Your task to perform on an android device: Add "dell xps" to the cart on newegg.com, then select checkout. Image 0: 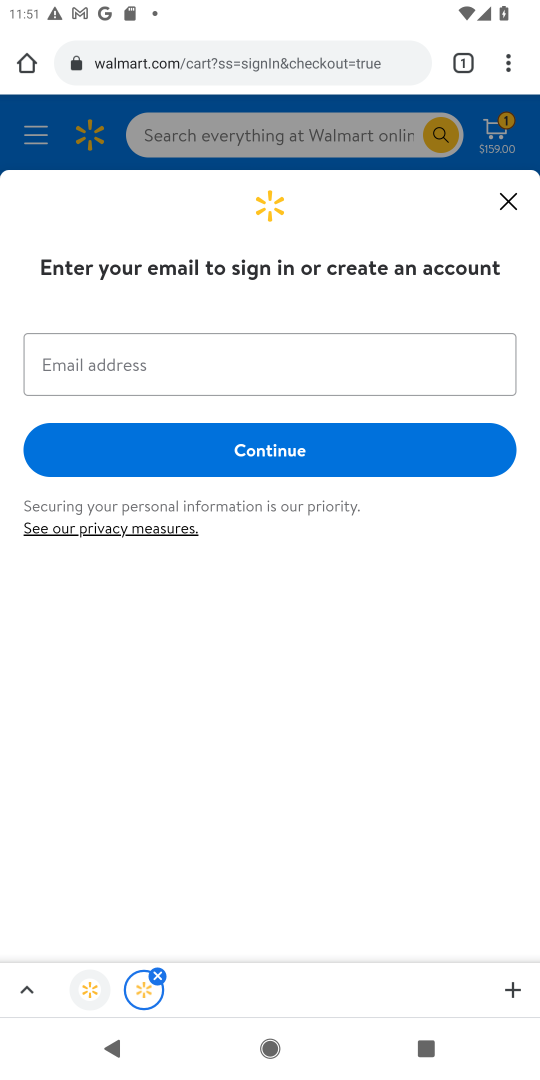
Step 0: press home button
Your task to perform on an android device: Add "dell xps" to the cart on newegg.com, then select checkout. Image 1: 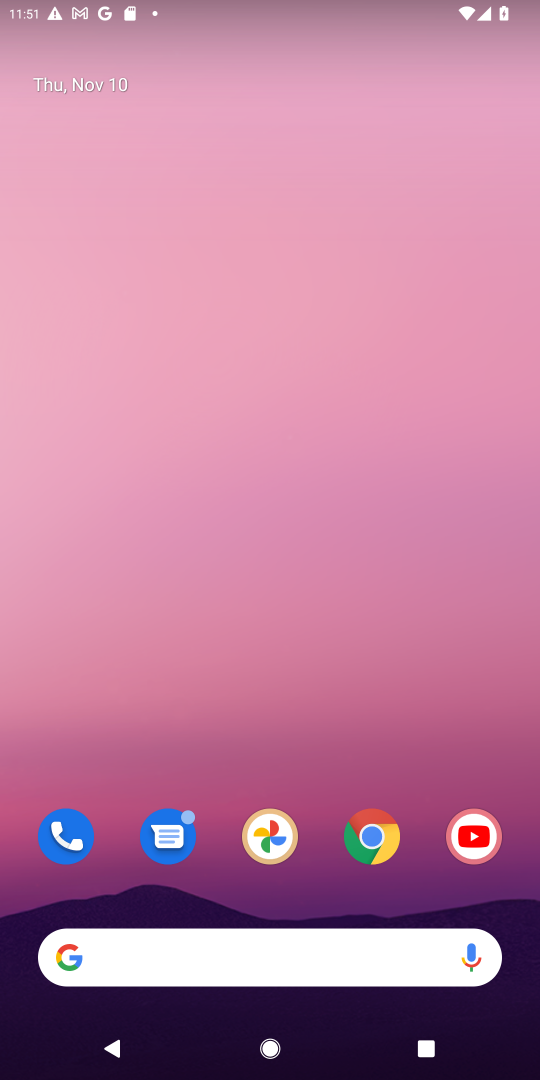
Step 1: click (263, 959)
Your task to perform on an android device: Add "dell xps" to the cart on newegg.com, then select checkout. Image 2: 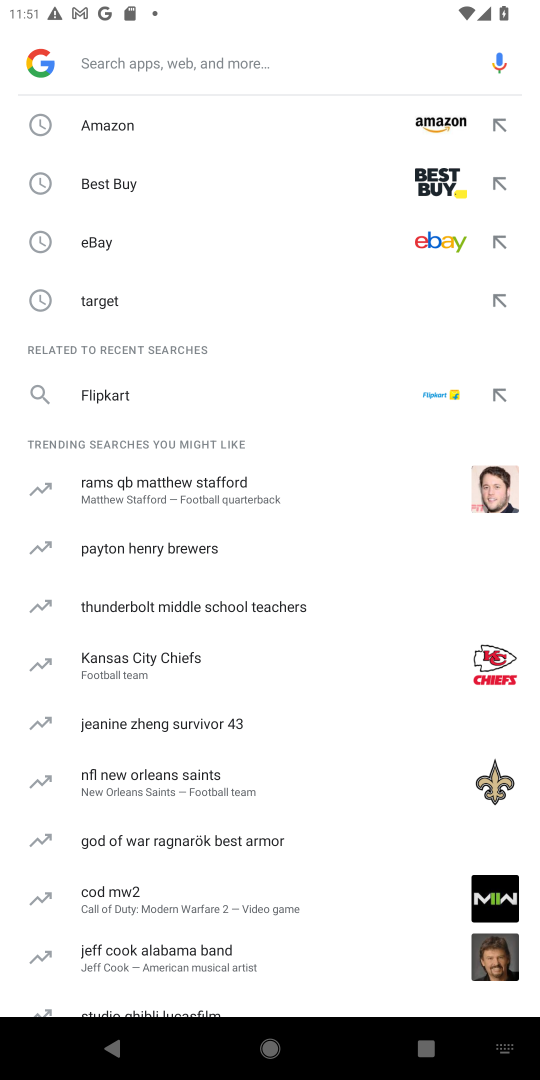
Step 2: type "newegg.com"
Your task to perform on an android device: Add "dell xps" to the cart on newegg.com, then select checkout. Image 3: 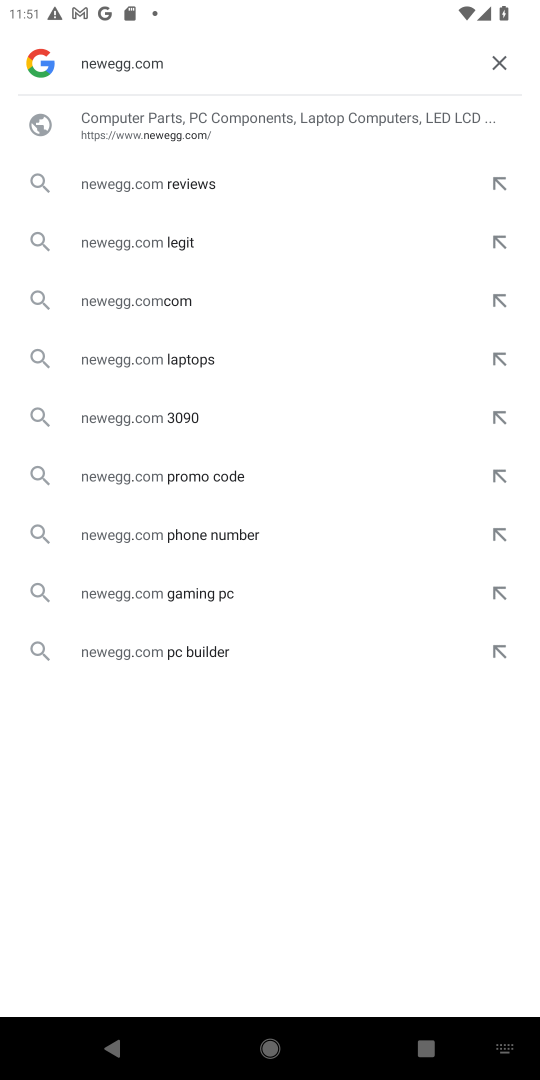
Step 3: click (165, 126)
Your task to perform on an android device: Add "dell xps" to the cart on newegg.com, then select checkout. Image 4: 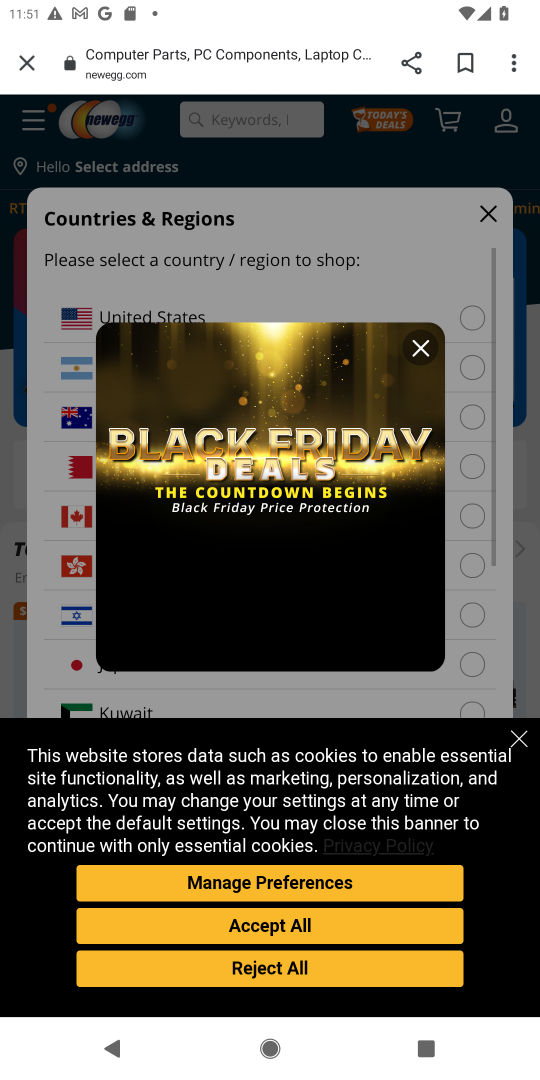
Step 4: click (515, 735)
Your task to perform on an android device: Add "dell xps" to the cart on newegg.com, then select checkout. Image 5: 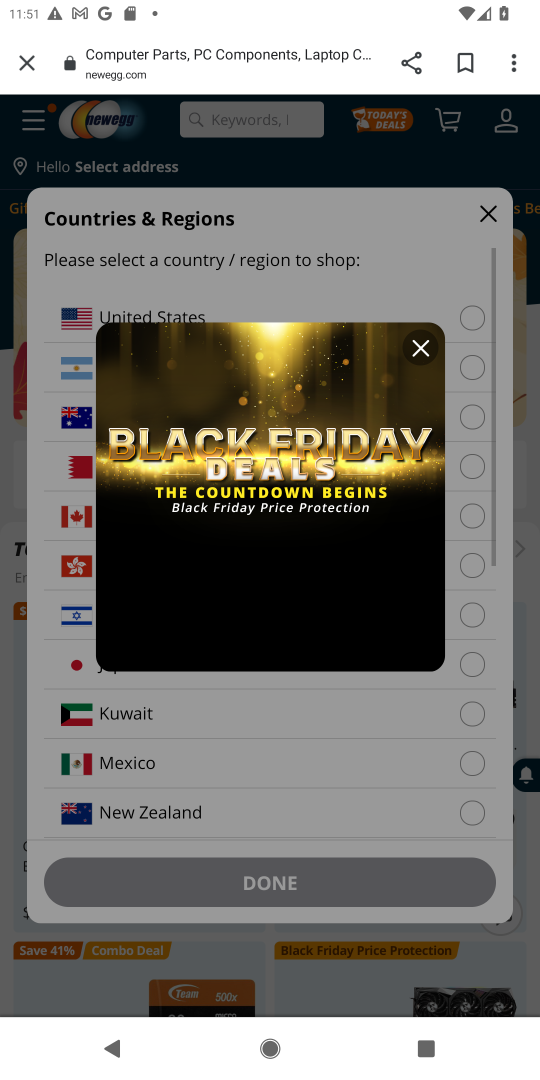
Step 5: click (421, 350)
Your task to perform on an android device: Add "dell xps" to the cart on newegg.com, then select checkout. Image 6: 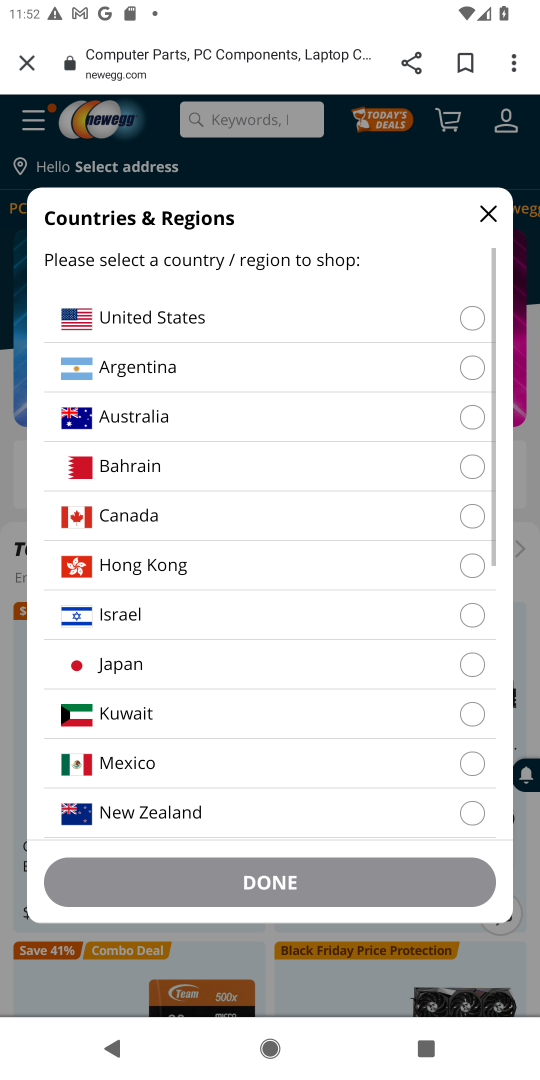
Step 6: click (475, 326)
Your task to perform on an android device: Add "dell xps" to the cart on newegg.com, then select checkout. Image 7: 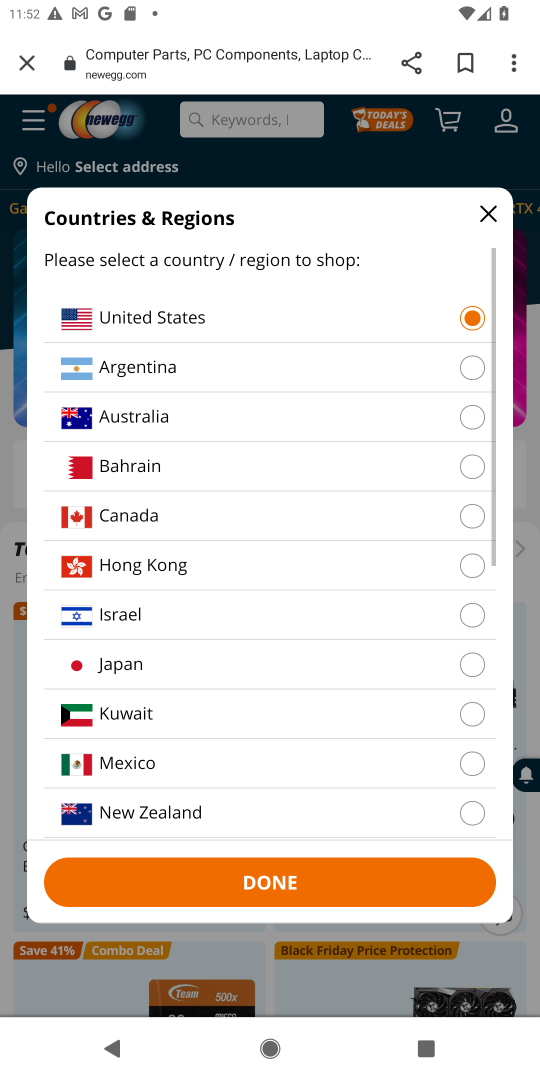
Step 7: click (270, 871)
Your task to perform on an android device: Add "dell xps" to the cart on newegg.com, then select checkout. Image 8: 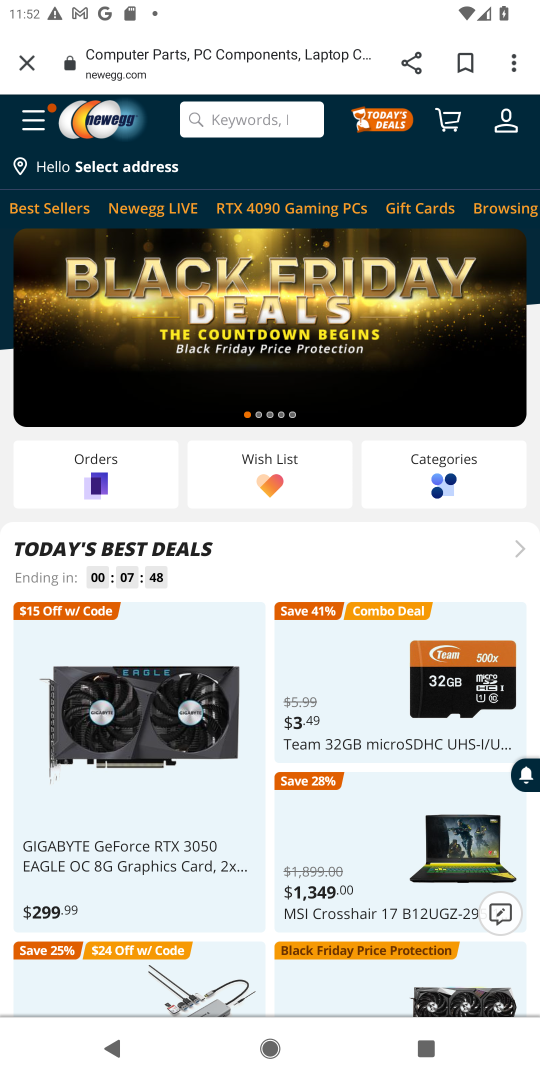
Step 8: click (413, 113)
Your task to perform on an android device: Add "dell xps" to the cart on newegg.com, then select checkout. Image 9: 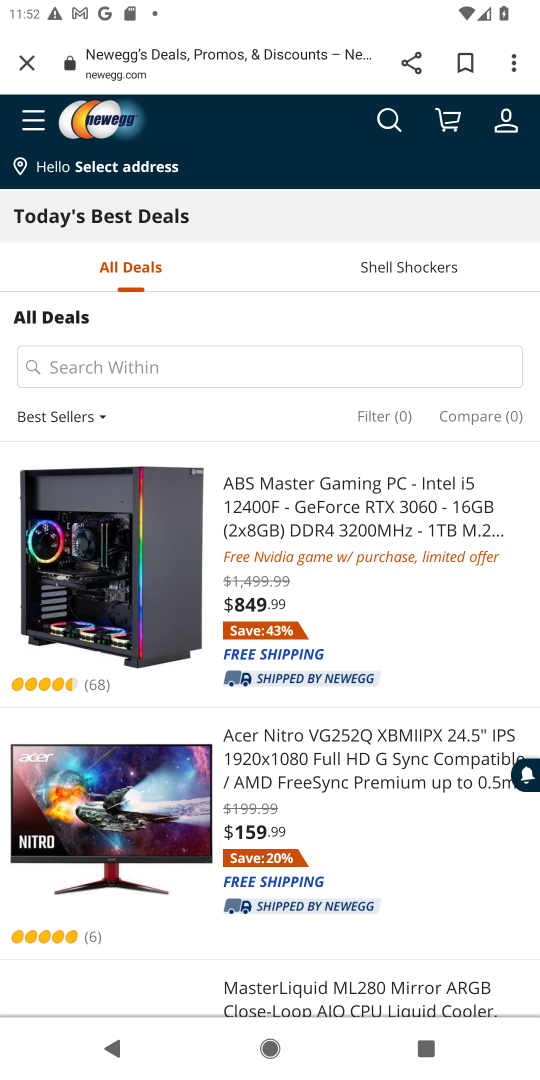
Step 9: click (260, 113)
Your task to perform on an android device: Add "dell xps" to the cart on newegg.com, then select checkout. Image 10: 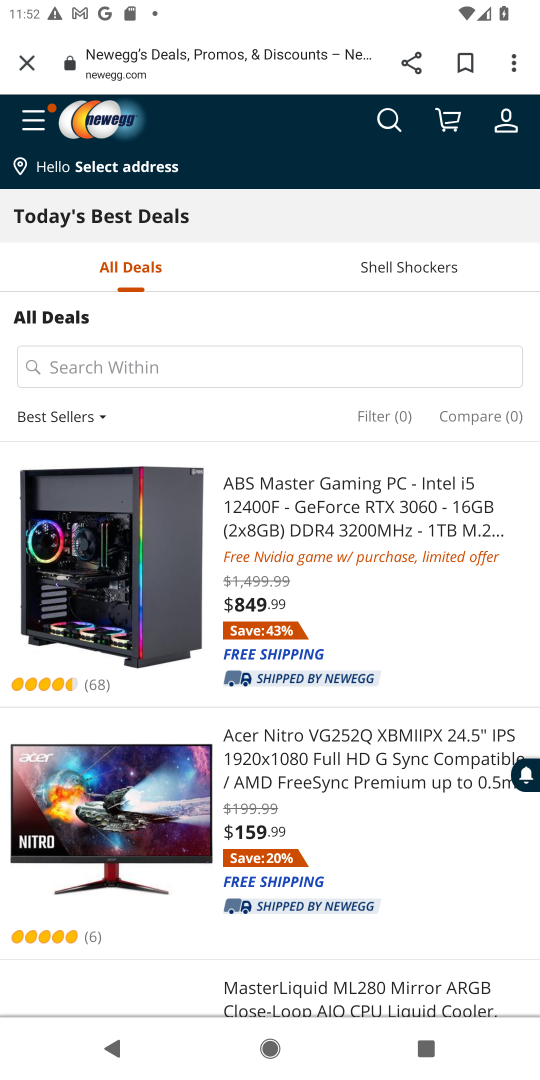
Step 10: click (386, 123)
Your task to perform on an android device: Add "dell xps" to the cart on newegg.com, then select checkout. Image 11: 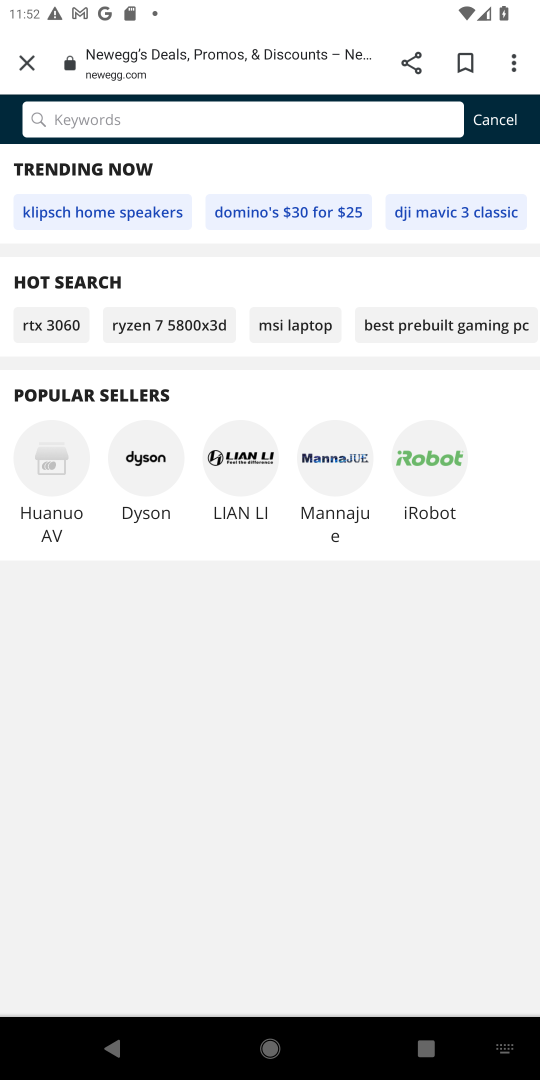
Step 11: type "dell xps"
Your task to perform on an android device: Add "dell xps" to the cart on newegg.com, then select checkout. Image 12: 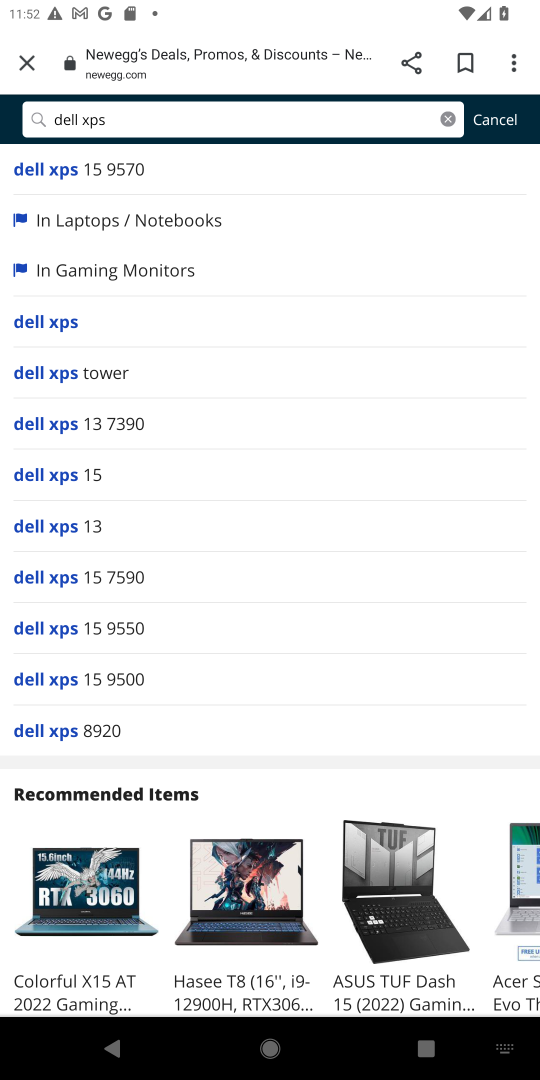
Step 12: click (60, 330)
Your task to perform on an android device: Add "dell xps" to the cart on newegg.com, then select checkout. Image 13: 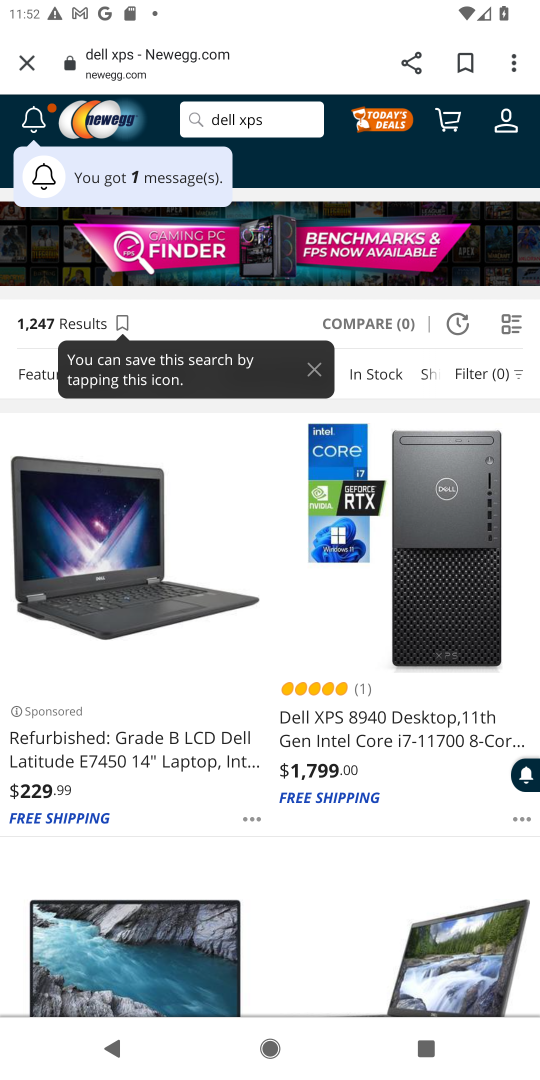
Step 13: click (67, 698)
Your task to perform on an android device: Add "dell xps" to the cart on newegg.com, then select checkout. Image 14: 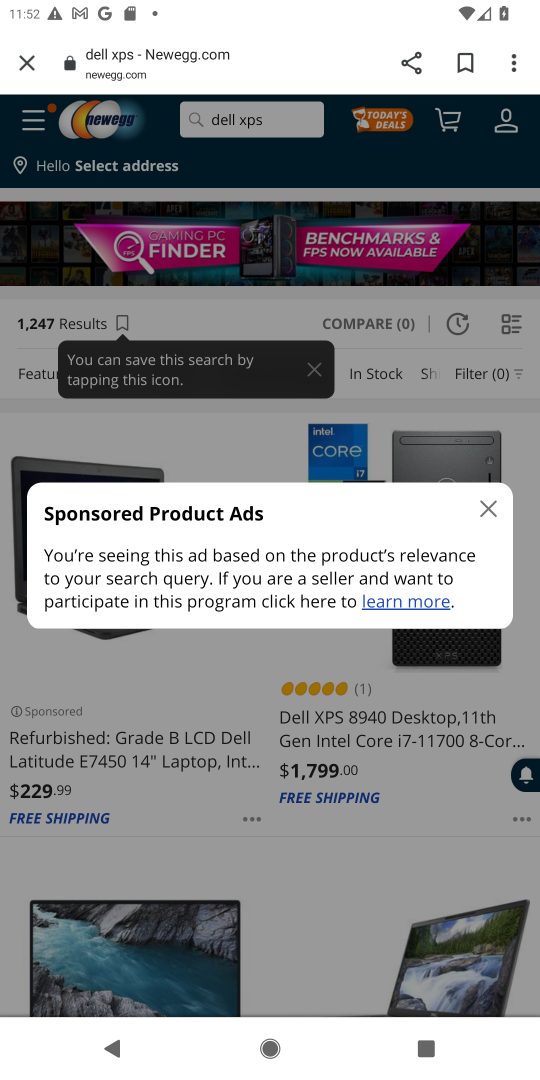
Step 14: click (105, 635)
Your task to perform on an android device: Add "dell xps" to the cart on newegg.com, then select checkout. Image 15: 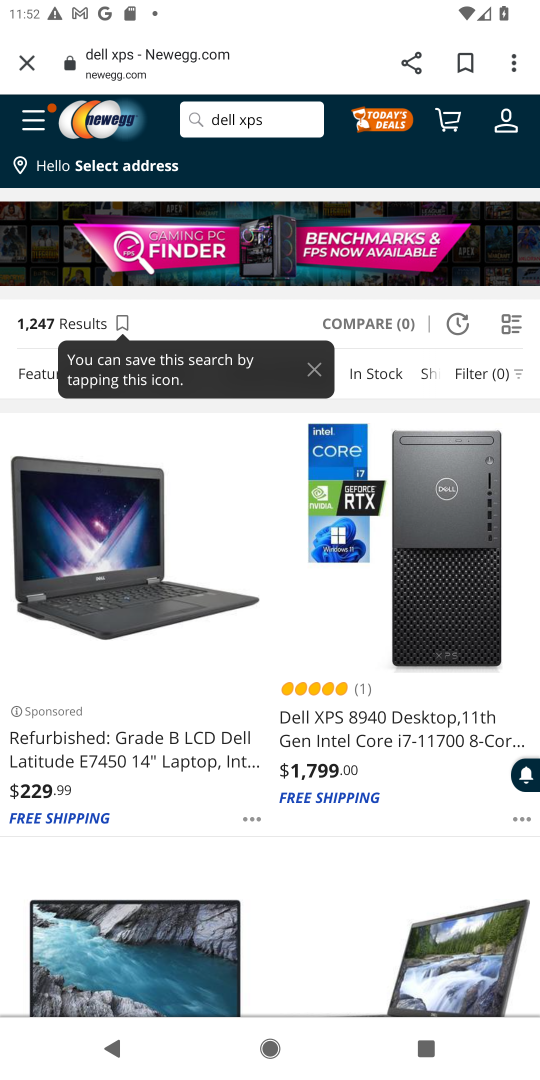
Step 15: click (493, 512)
Your task to perform on an android device: Add "dell xps" to the cart on newegg.com, then select checkout. Image 16: 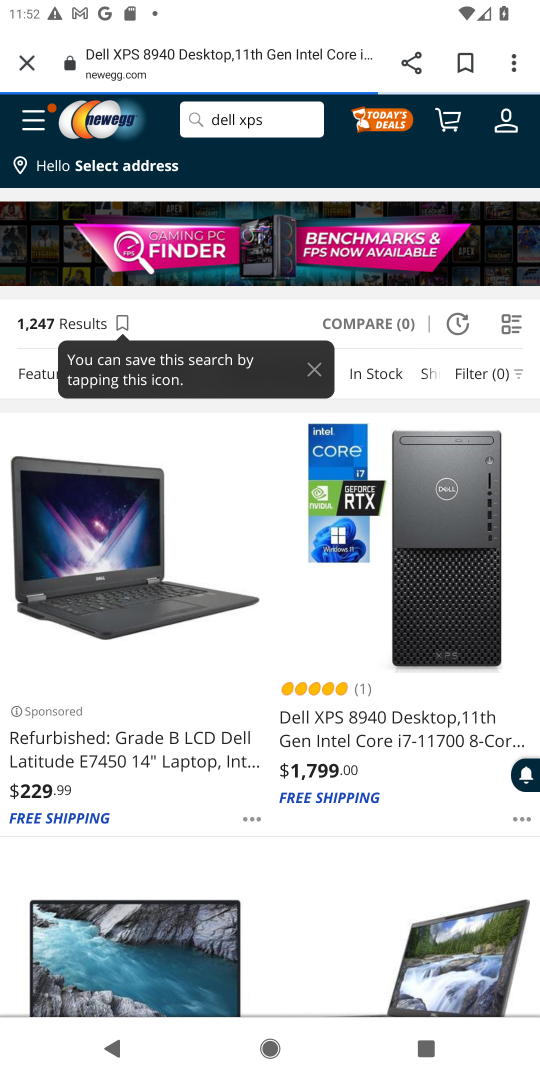
Step 16: click (117, 563)
Your task to perform on an android device: Add "dell xps" to the cart on newegg.com, then select checkout. Image 17: 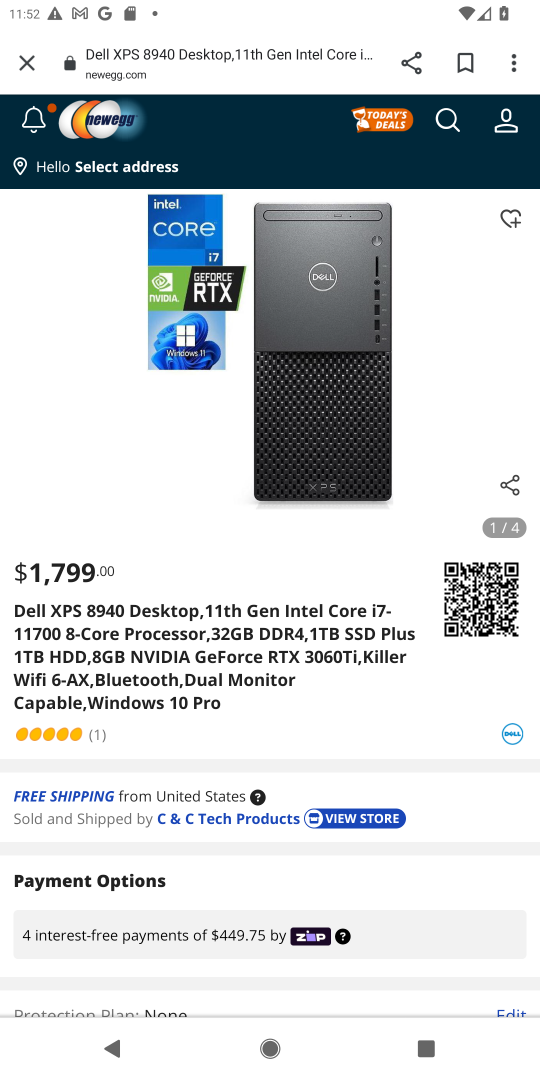
Step 17: click (248, 984)
Your task to perform on an android device: Add "dell xps" to the cart on newegg.com, then select checkout. Image 18: 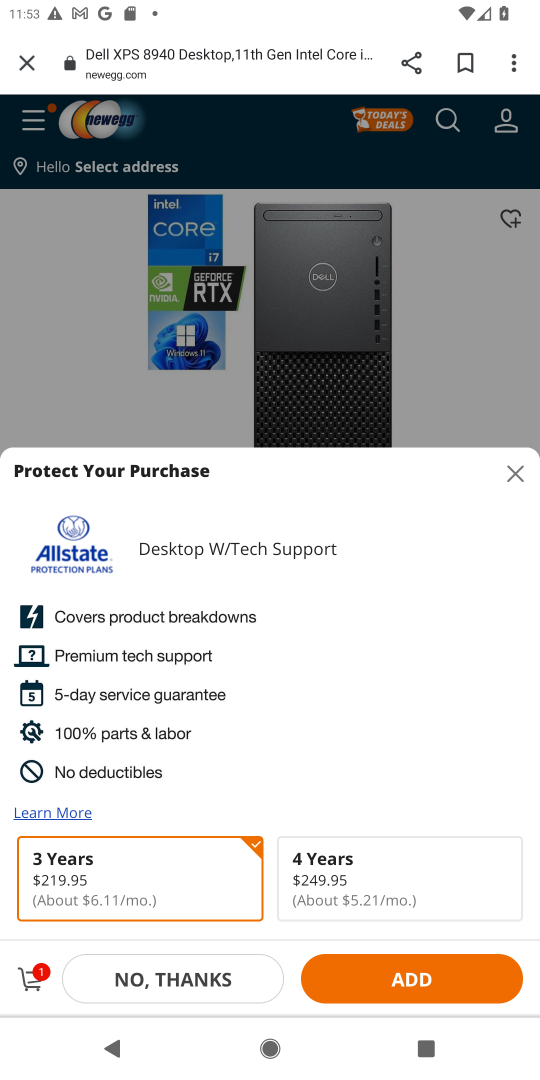
Step 18: click (34, 977)
Your task to perform on an android device: Add "dell xps" to the cart on newegg.com, then select checkout. Image 19: 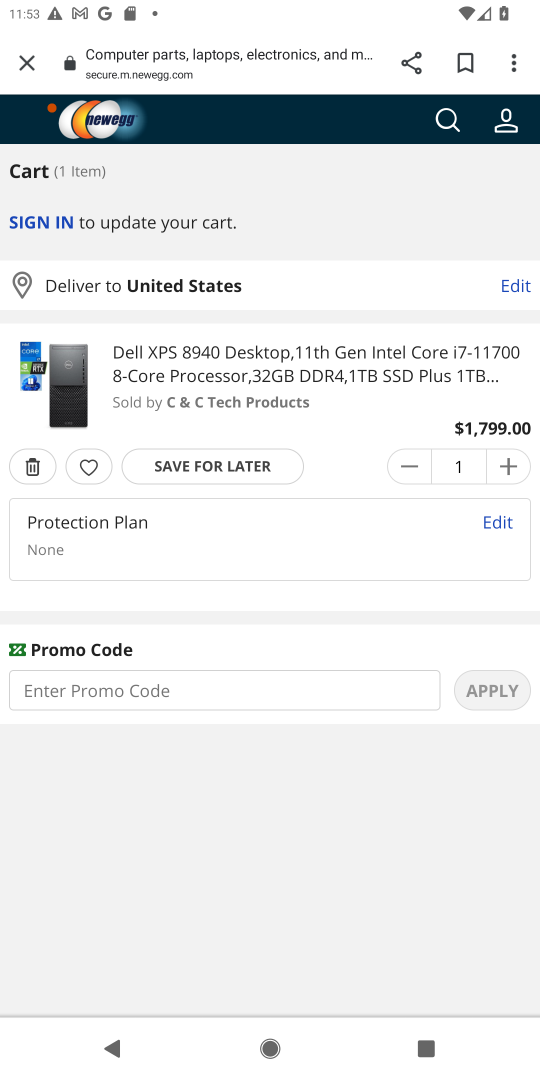
Step 19: click (33, 984)
Your task to perform on an android device: Add "dell xps" to the cart on newegg.com, then select checkout. Image 20: 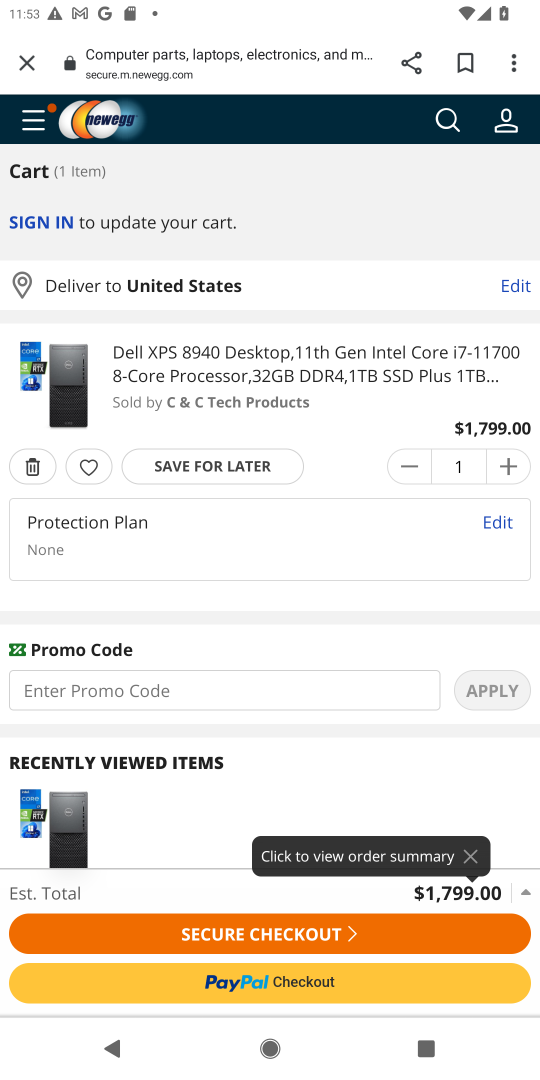
Step 20: click (256, 793)
Your task to perform on an android device: Add "dell xps" to the cart on newegg.com, then select checkout. Image 21: 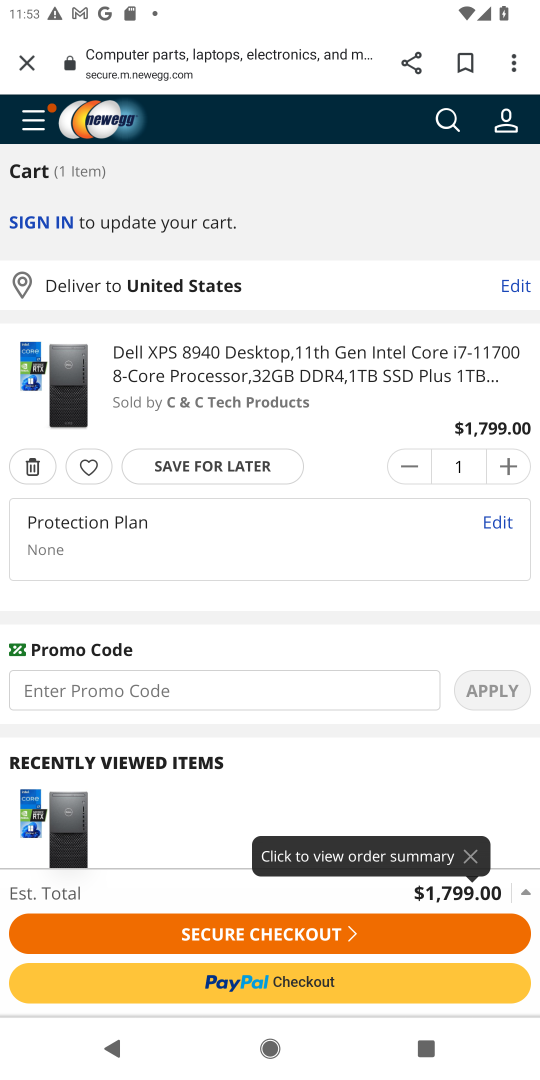
Step 21: click (231, 926)
Your task to perform on an android device: Add "dell xps" to the cart on newegg.com, then select checkout. Image 22: 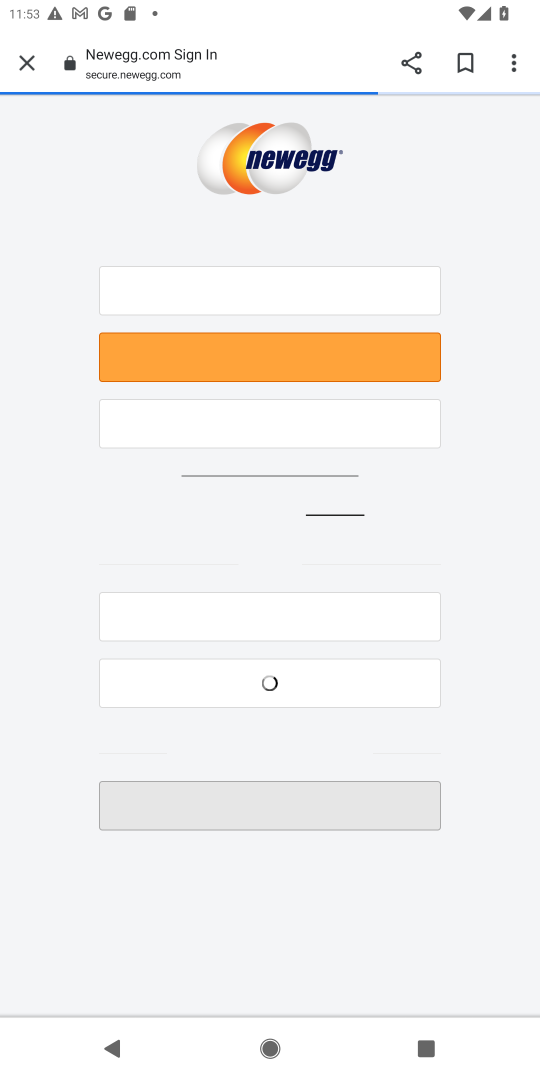
Step 22: click (295, 926)
Your task to perform on an android device: Add "dell xps" to the cart on newegg.com, then select checkout. Image 23: 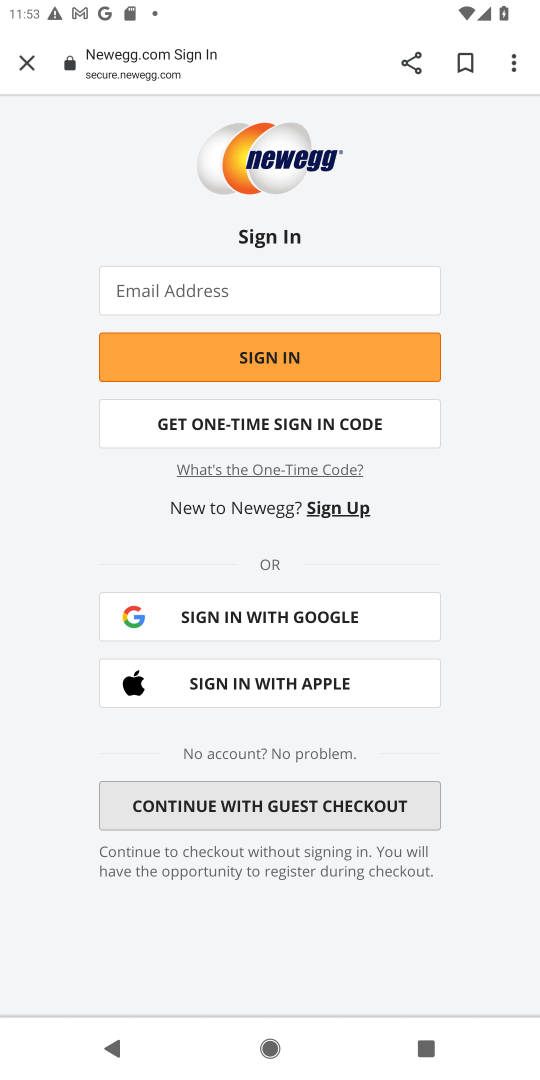
Step 23: task complete